Your task to perform on an android device: turn off sleep mode Image 0: 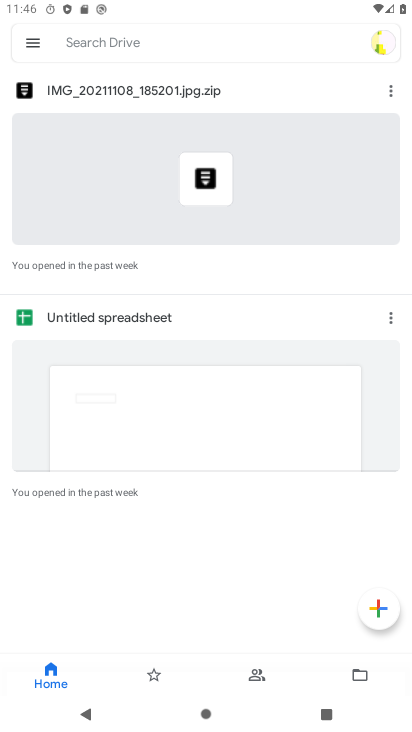
Step 0: press back button
Your task to perform on an android device: turn off sleep mode Image 1: 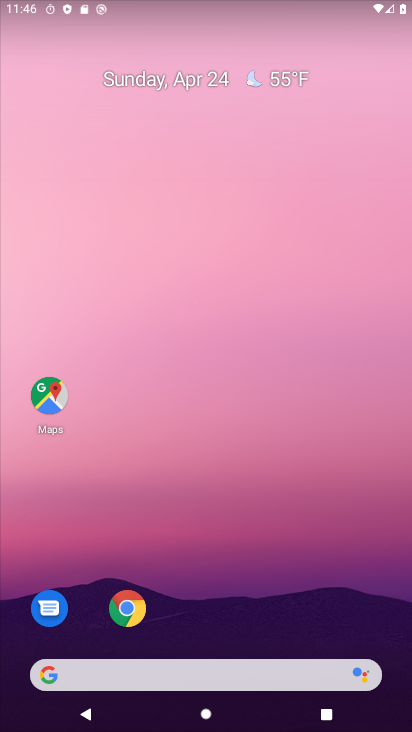
Step 1: drag from (273, 450) to (298, 97)
Your task to perform on an android device: turn off sleep mode Image 2: 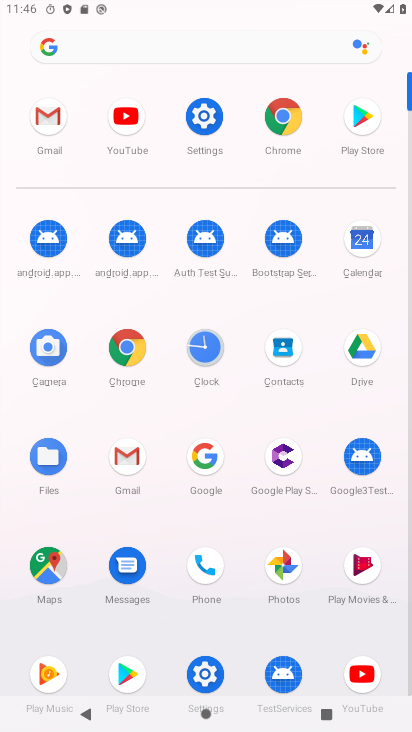
Step 2: click (208, 115)
Your task to perform on an android device: turn off sleep mode Image 3: 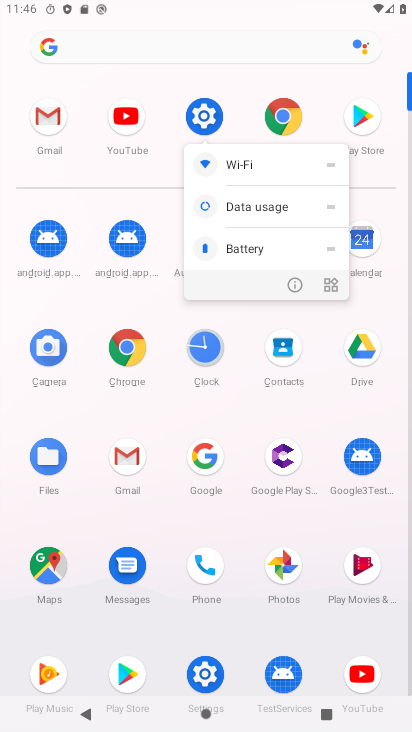
Step 3: click (203, 115)
Your task to perform on an android device: turn off sleep mode Image 4: 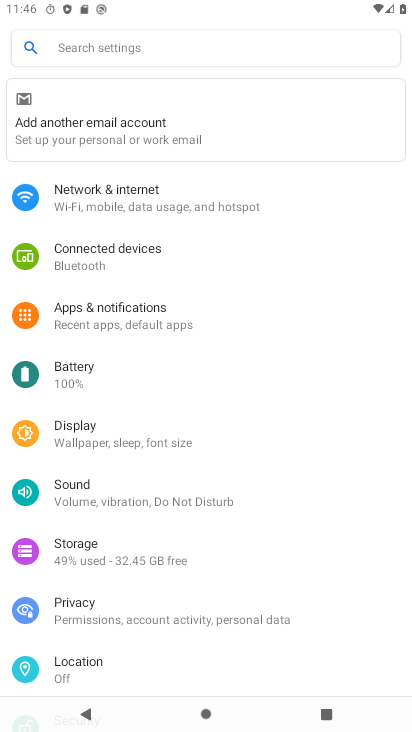
Step 4: click (162, 62)
Your task to perform on an android device: turn off sleep mode Image 5: 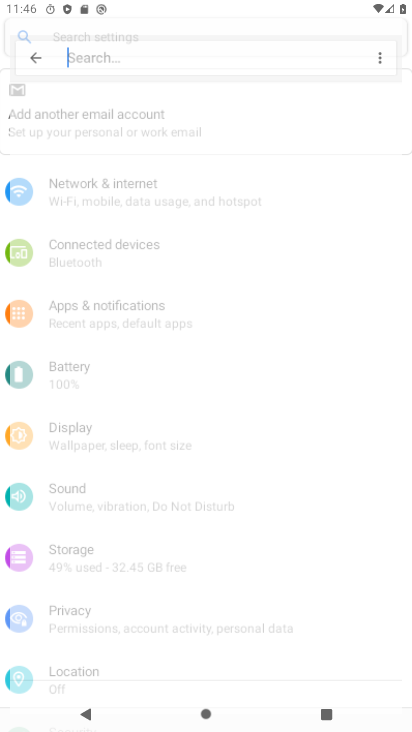
Step 5: click (99, 47)
Your task to perform on an android device: turn off sleep mode Image 6: 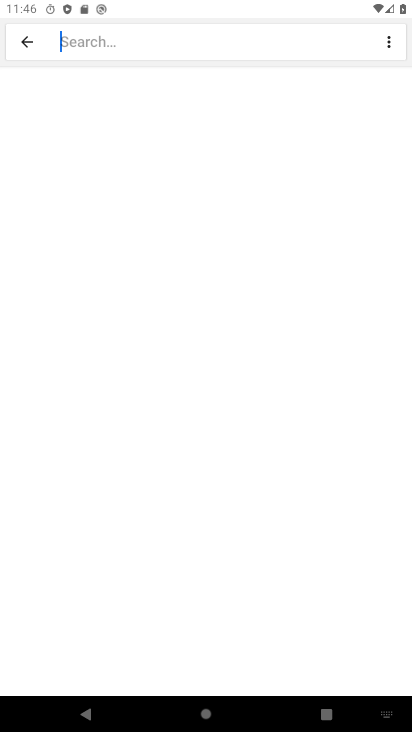
Step 6: type "sleep mode"
Your task to perform on an android device: turn off sleep mode Image 7: 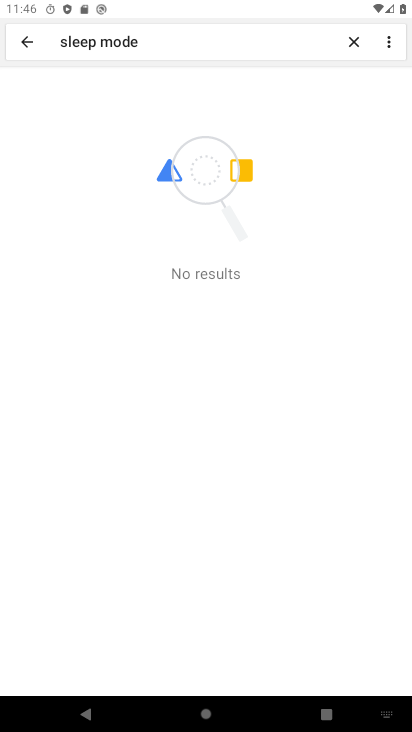
Step 7: task complete